Your task to perform on an android device: Open CNN.com Image 0: 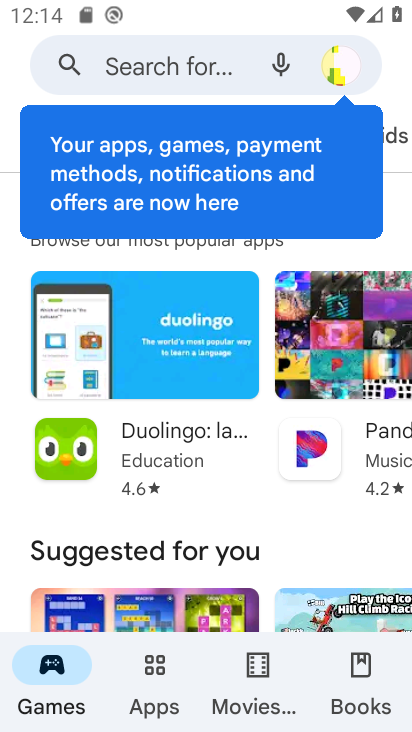
Step 0: press home button
Your task to perform on an android device: Open CNN.com Image 1: 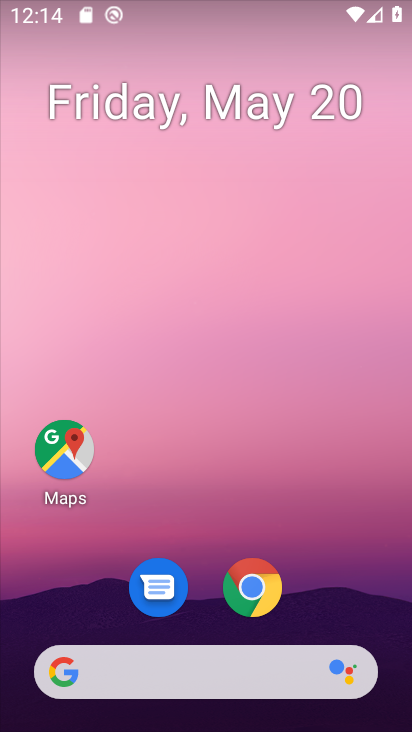
Step 1: drag from (375, 606) to (380, 232)
Your task to perform on an android device: Open CNN.com Image 2: 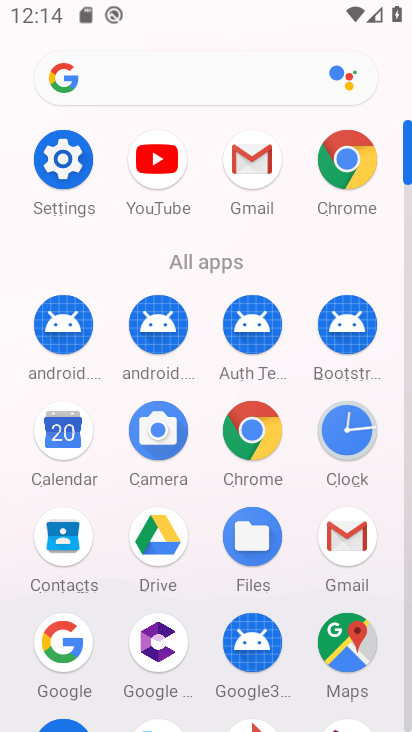
Step 2: click (266, 470)
Your task to perform on an android device: Open CNN.com Image 3: 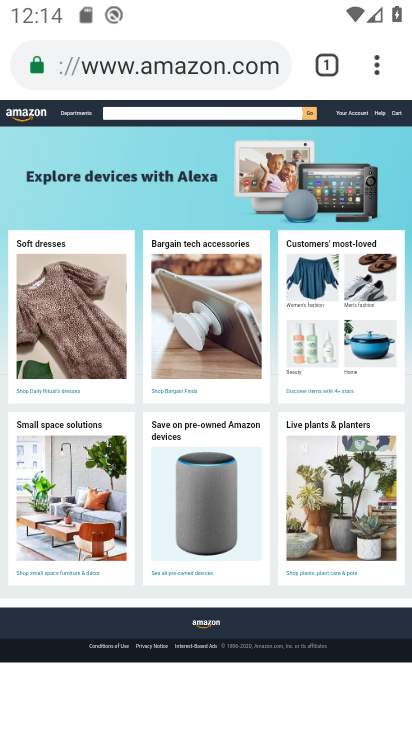
Step 3: press back button
Your task to perform on an android device: Open CNN.com Image 4: 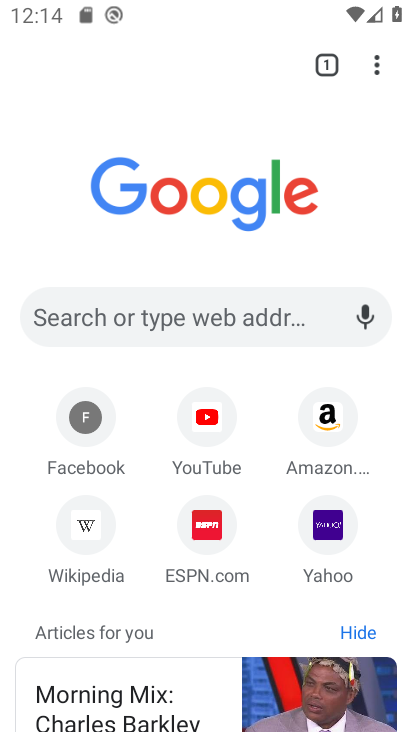
Step 4: click (259, 323)
Your task to perform on an android device: Open CNN.com Image 5: 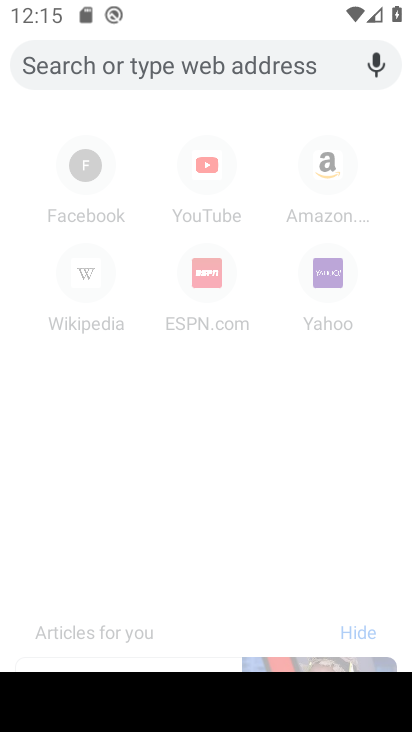
Step 5: type "cnn.com"
Your task to perform on an android device: Open CNN.com Image 6: 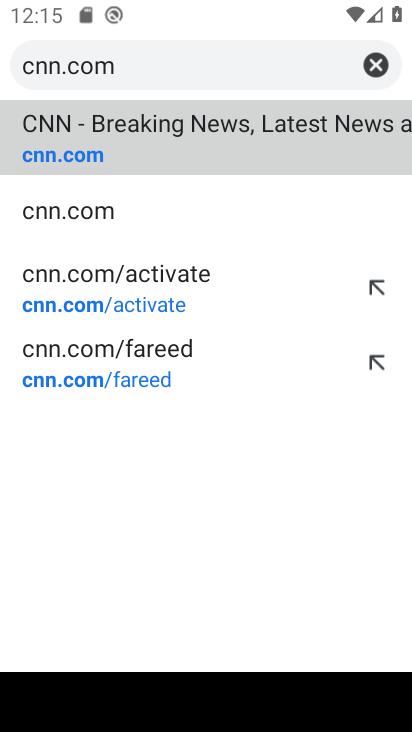
Step 6: click (247, 216)
Your task to perform on an android device: Open CNN.com Image 7: 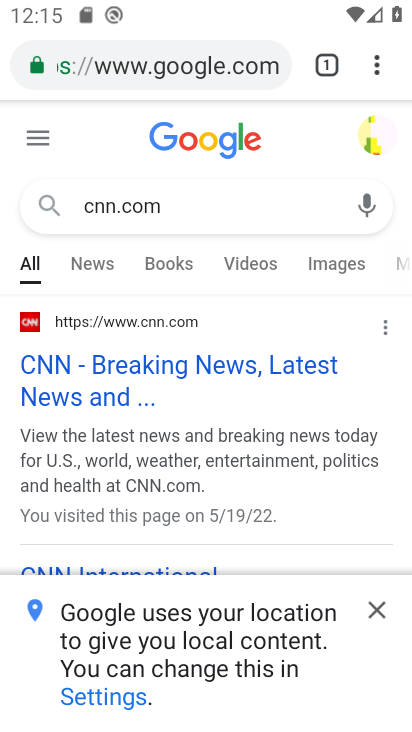
Step 7: task complete